Your task to perform on an android device: open app "Pinterest" Image 0: 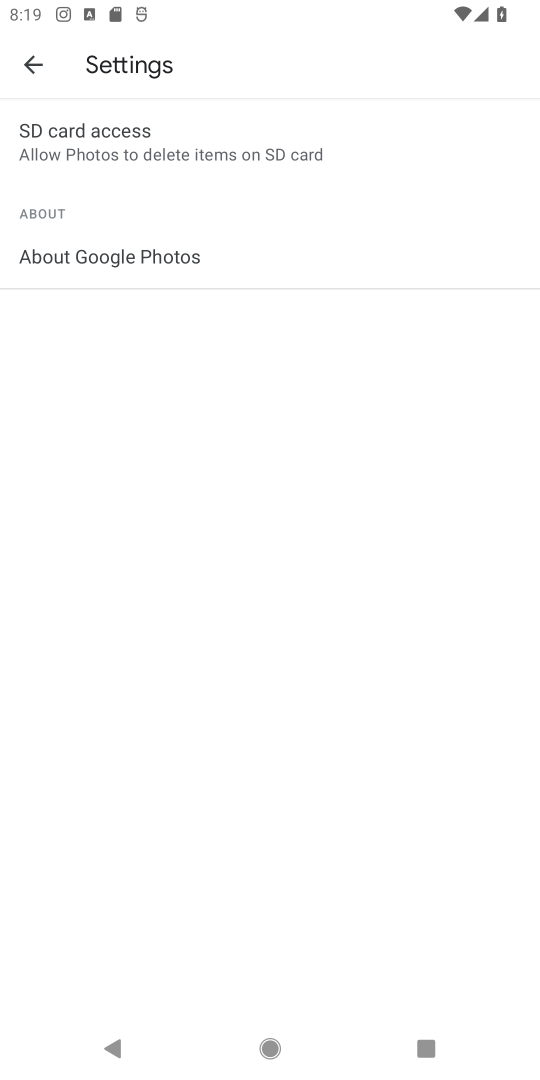
Step 0: press home button
Your task to perform on an android device: open app "Pinterest" Image 1: 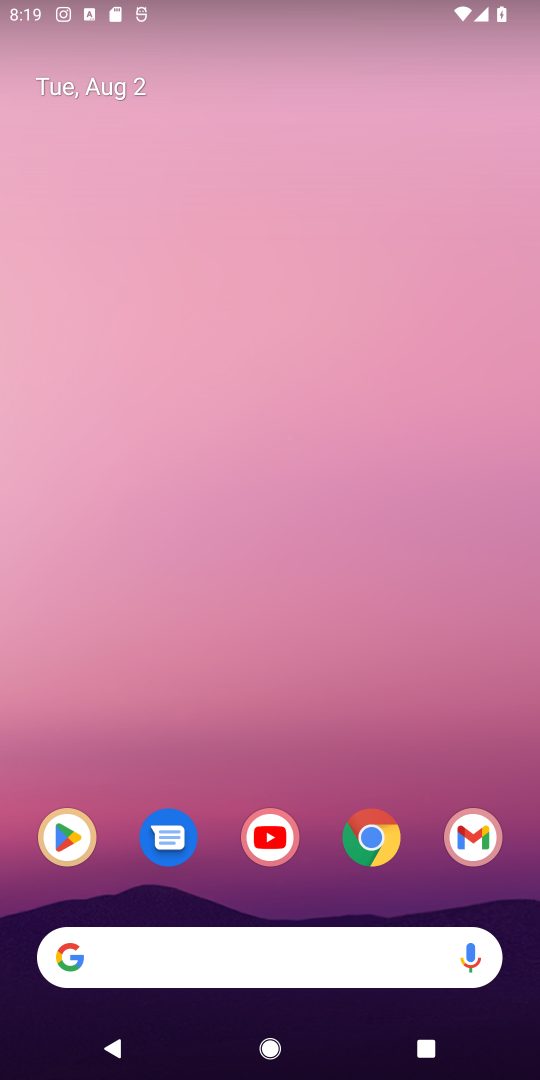
Step 1: click (75, 835)
Your task to perform on an android device: open app "Pinterest" Image 2: 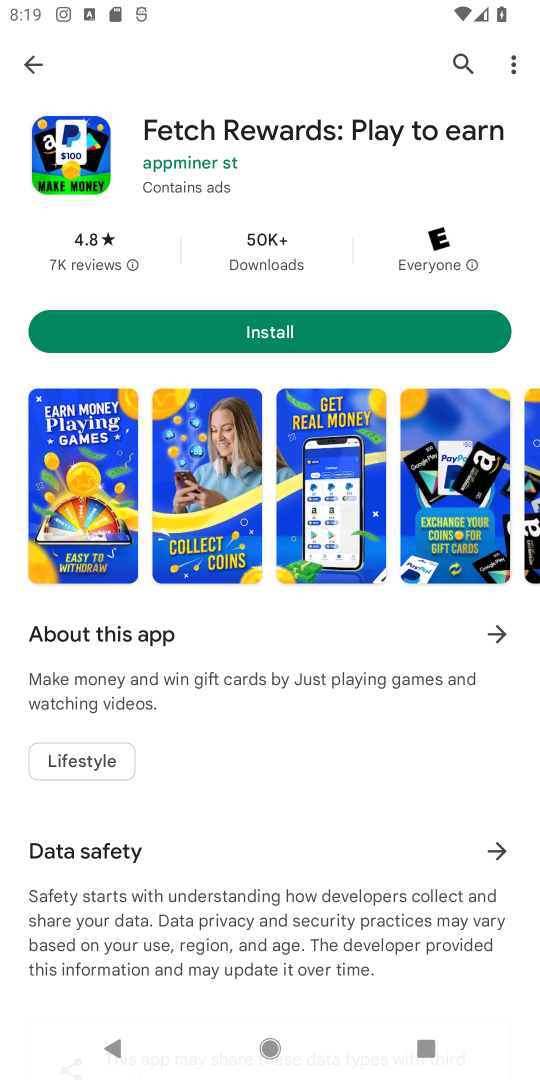
Step 2: click (454, 66)
Your task to perform on an android device: open app "Pinterest" Image 3: 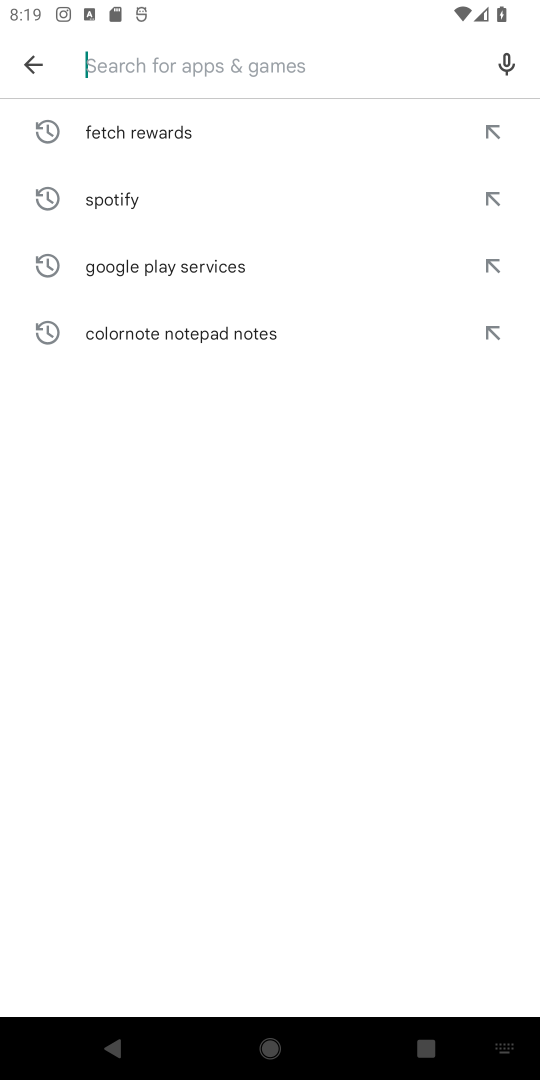
Step 3: type "Pinterest"
Your task to perform on an android device: open app "Pinterest" Image 4: 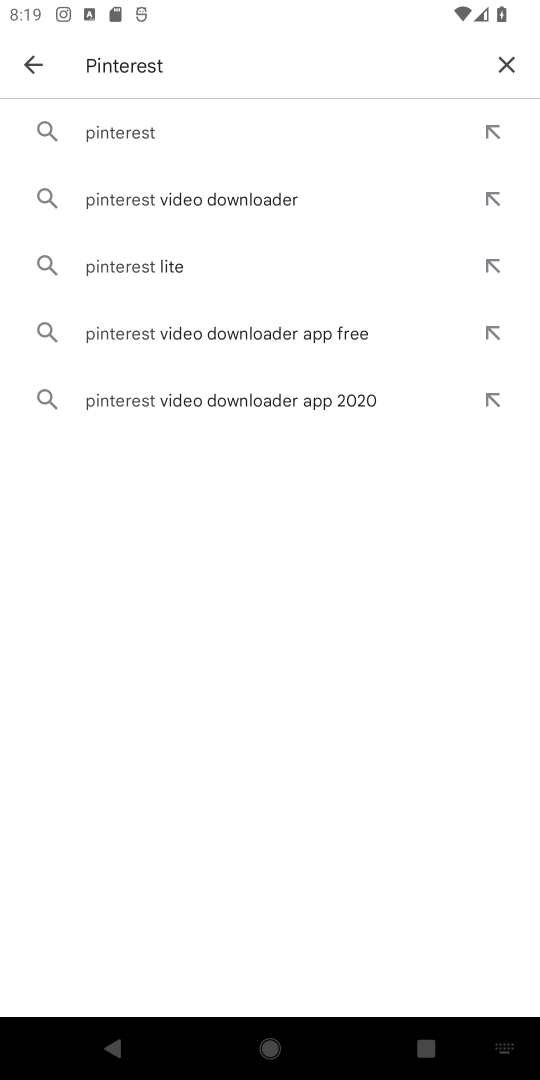
Step 4: click (91, 140)
Your task to perform on an android device: open app "Pinterest" Image 5: 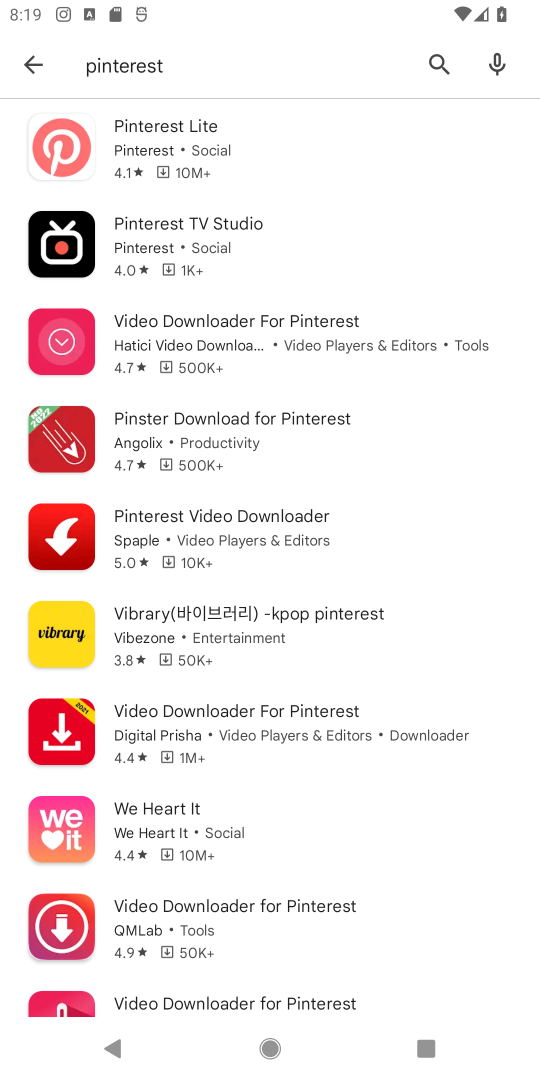
Step 5: task complete